Your task to perform on an android device: turn notification dots off Image 0: 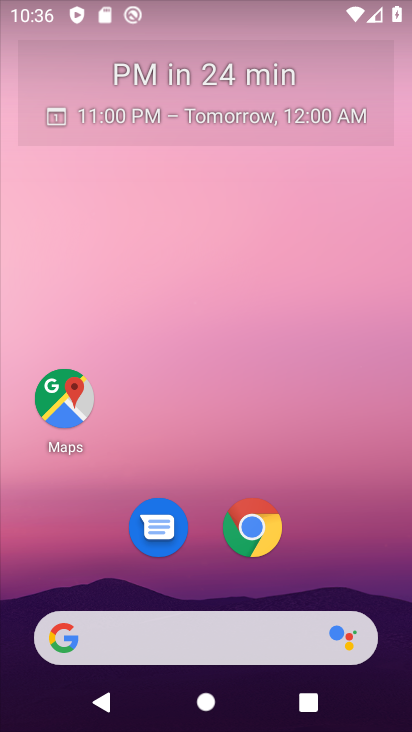
Step 0: drag from (251, 546) to (358, 42)
Your task to perform on an android device: turn notification dots off Image 1: 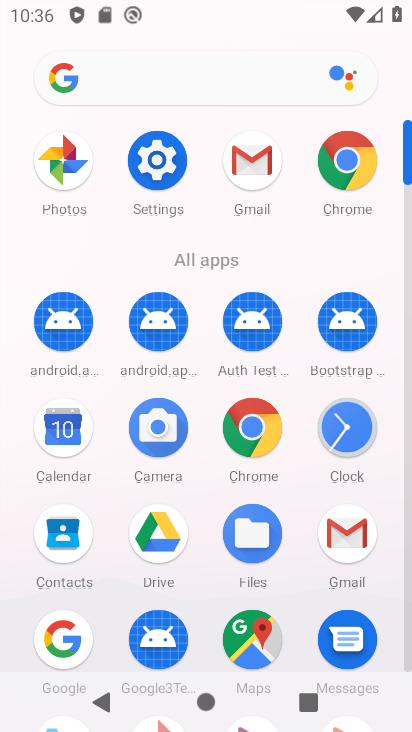
Step 1: click (157, 162)
Your task to perform on an android device: turn notification dots off Image 2: 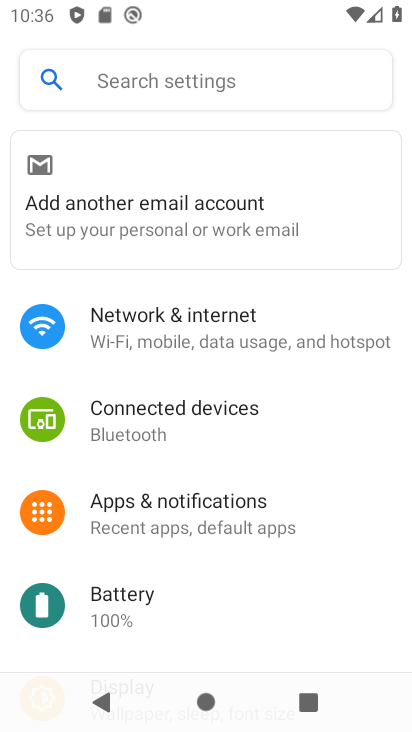
Step 2: click (190, 509)
Your task to perform on an android device: turn notification dots off Image 3: 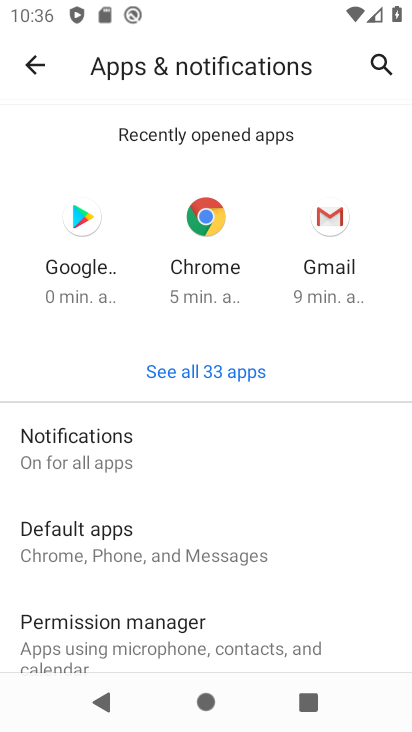
Step 3: click (119, 458)
Your task to perform on an android device: turn notification dots off Image 4: 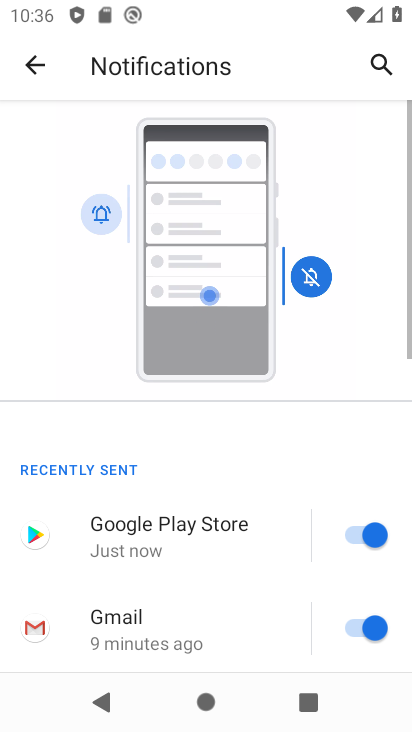
Step 4: drag from (185, 623) to (311, 87)
Your task to perform on an android device: turn notification dots off Image 5: 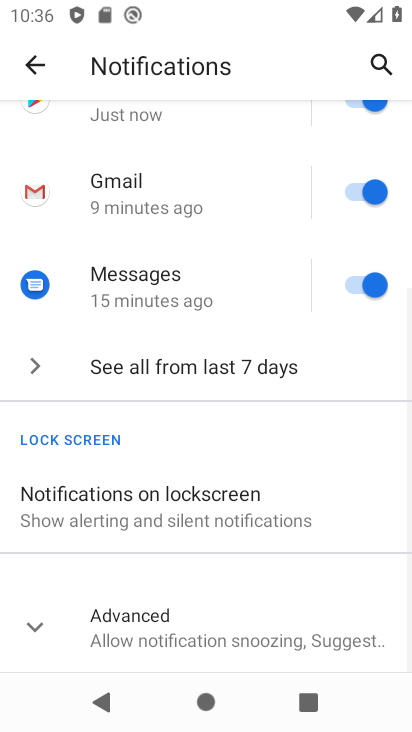
Step 5: drag from (195, 544) to (252, 159)
Your task to perform on an android device: turn notification dots off Image 6: 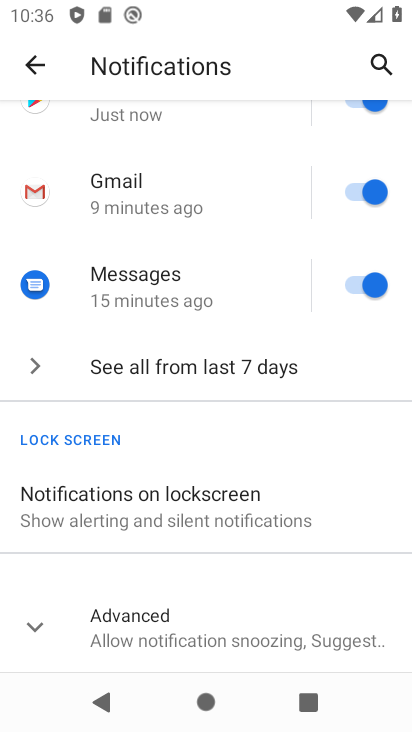
Step 6: click (174, 630)
Your task to perform on an android device: turn notification dots off Image 7: 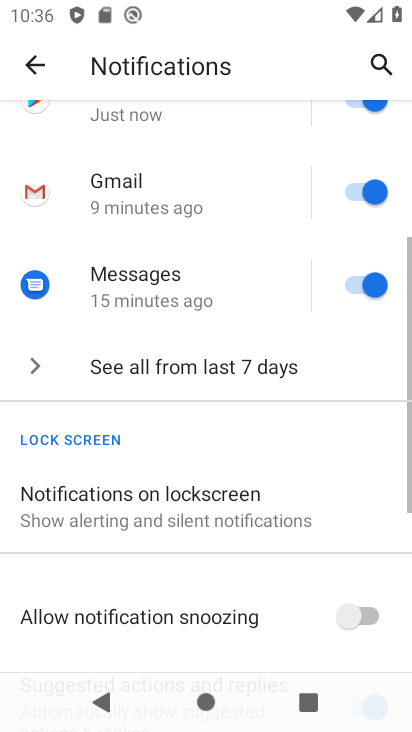
Step 7: drag from (179, 620) to (279, 207)
Your task to perform on an android device: turn notification dots off Image 8: 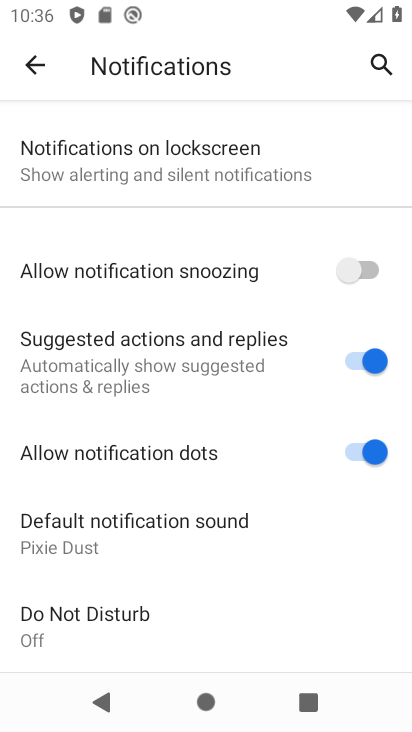
Step 8: click (380, 450)
Your task to perform on an android device: turn notification dots off Image 9: 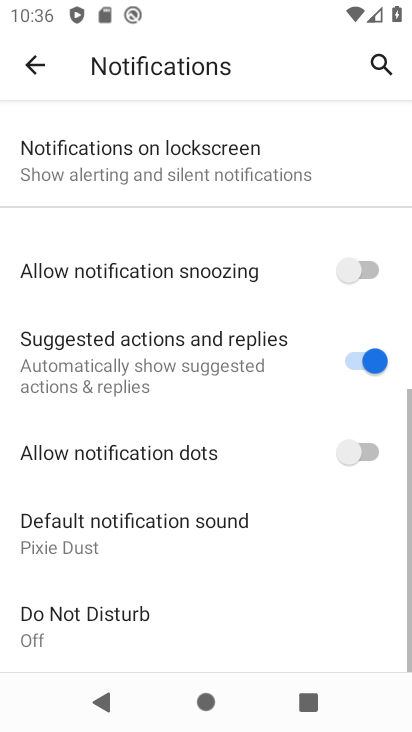
Step 9: task complete